Your task to perform on an android device: What's the weather going to be this weekend? Image 0: 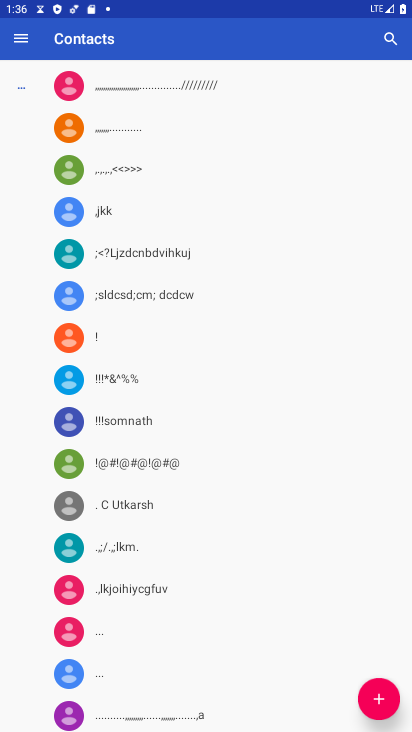
Step 0: press home button
Your task to perform on an android device: What's the weather going to be this weekend? Image 1: 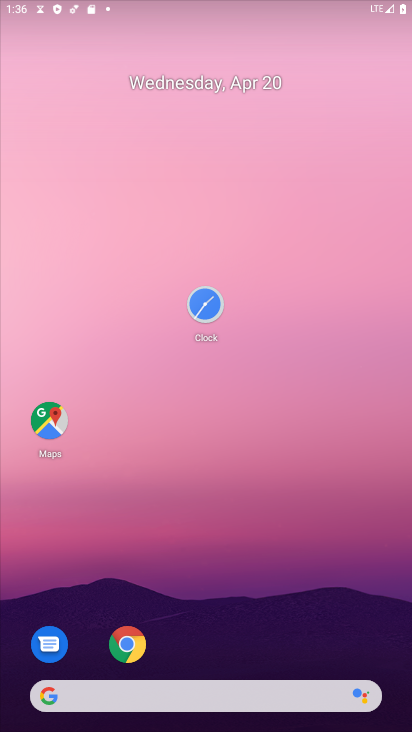
Step 1: drag from (231, 662) to (243, 93)
Your task to perform on an android device: What's the weather going to be this weekend? Image 2: 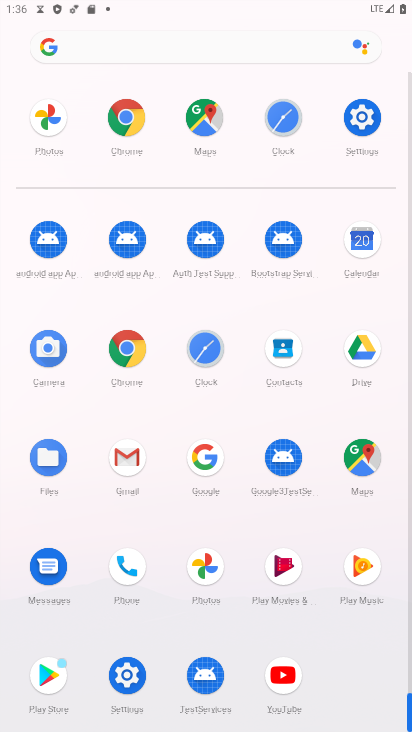
Step 2: click (130, 361)
Your task to perform on an android device: What's the weather going to be this weekend? Image 3: 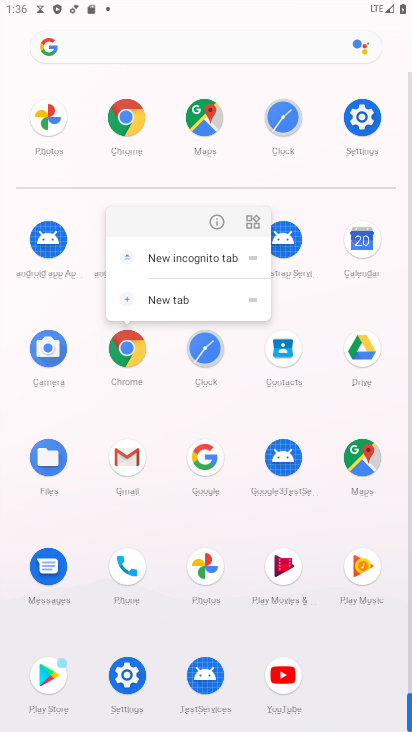
Step 3: click (124, 343)
Your task to perform on an android device: What's the weather going to be this weekend? Image 4: 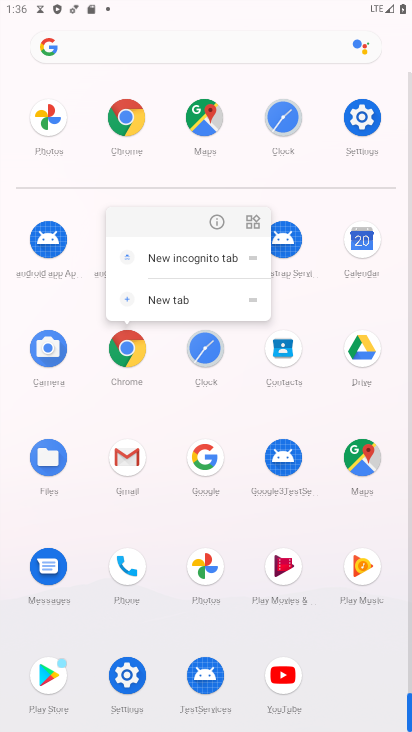
Step 4: click (123, 343)
Your task to perform on an android device: What's the weather going to be this weekend? Image 5: 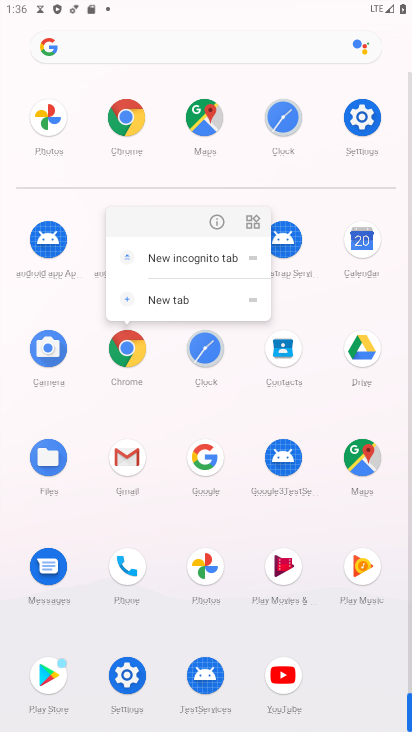
Step 5: click (127, 352)
Your task to perform on an android device: What's the weather going to be this weekend? Image 6: 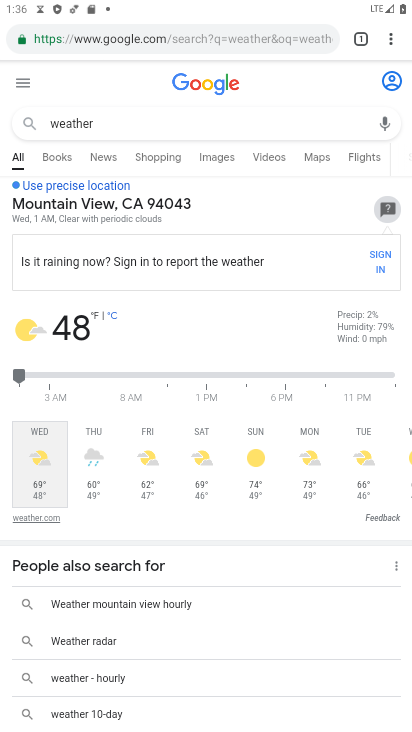
Step 6: click (224, 43)
Your task to perform on an android device: What's the weather going to be this weekend? Image 7: 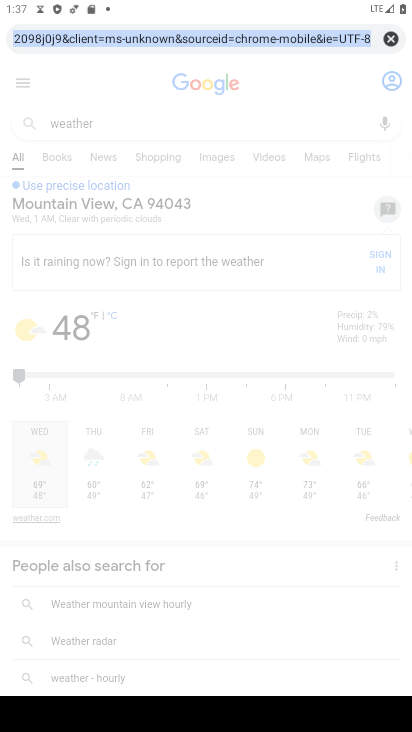
Step 7: click (387, 38)
Your task to perform on an android device: What's the weather going to be this weekend? Image 8: 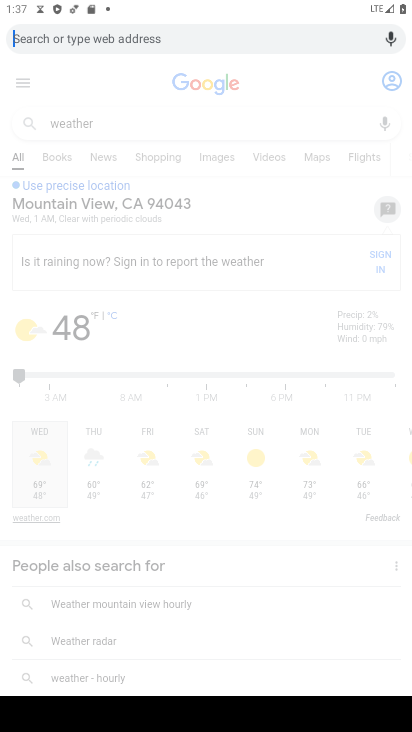
Step 8: type "weathher thia weekend"
Your task to perform on an android device: What's the weather going to be this weekend? Image 9: 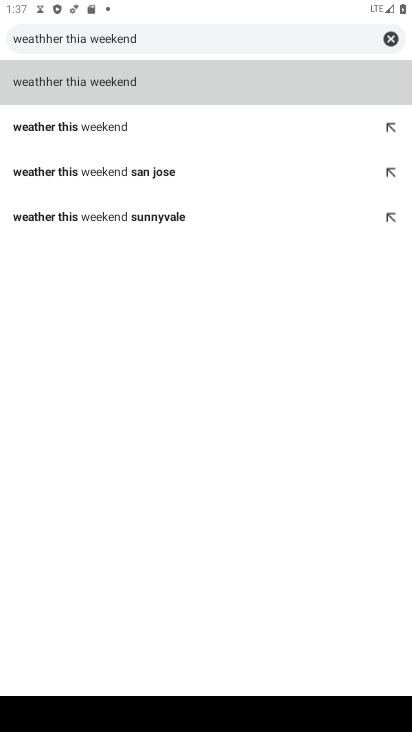
Step 9: click (232, 80)
Your task to perform on an android device: What's the weather going to be this weekend? Image 10: 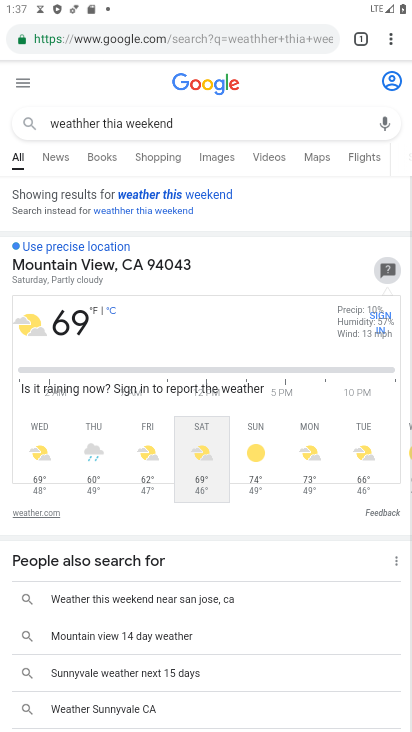
Step 10: task complete